Your task to perform on an android device: Find coffee shops on Maps Image 0: 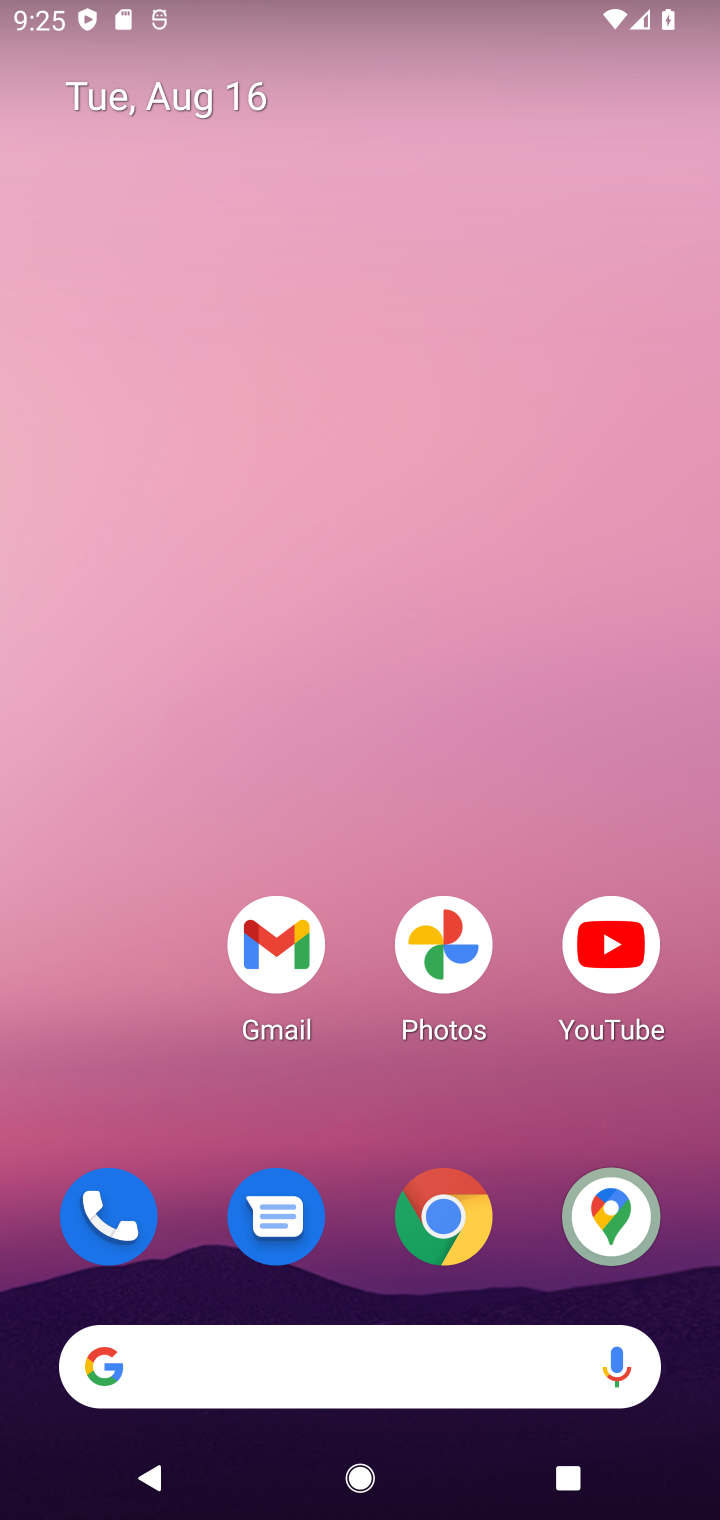
Step 0: drag from (379, 1135) to (379, 115)
Your task to perform on an android device: Find coffee shops on Maps Image 1: 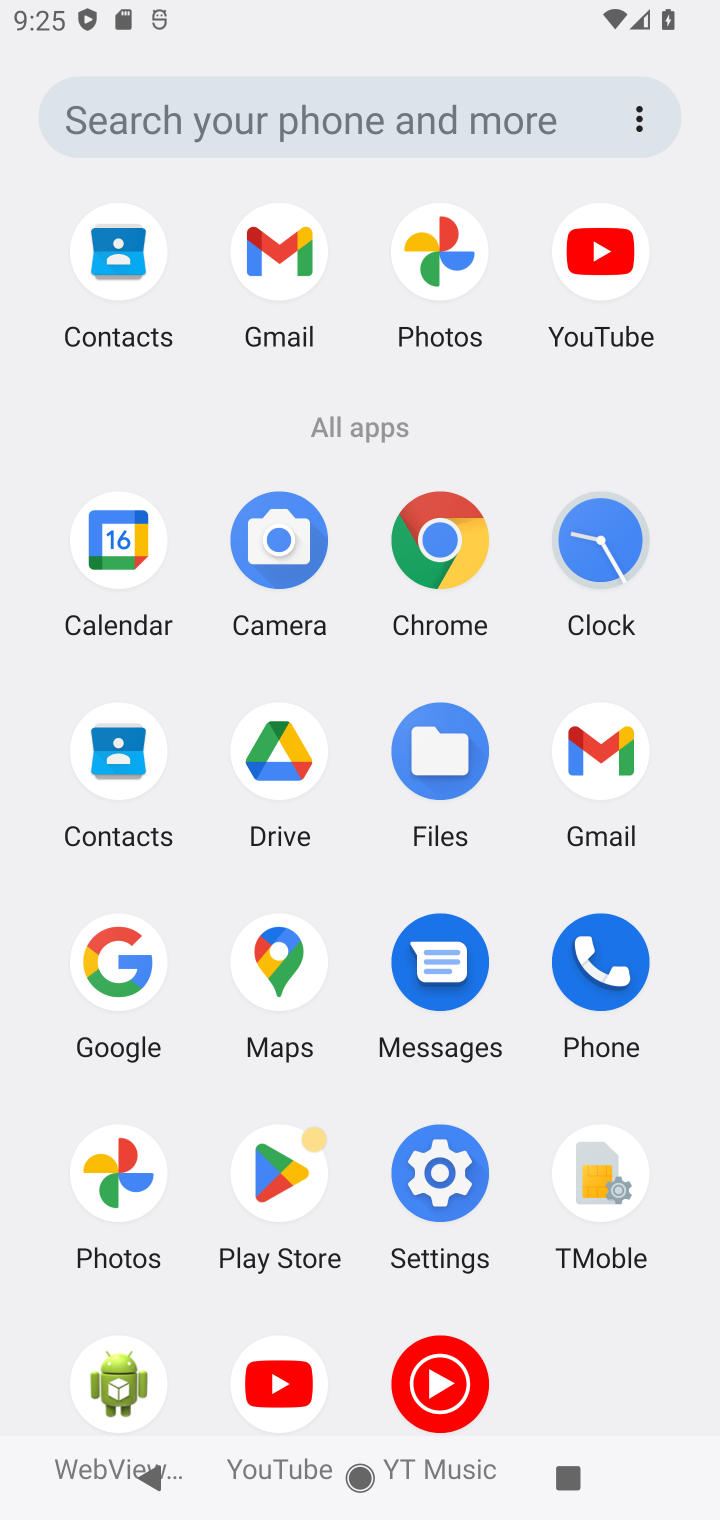
Step 1: click (271, 984)
Your task to perform on an android device: Find coffee shops on Maps Image 2: 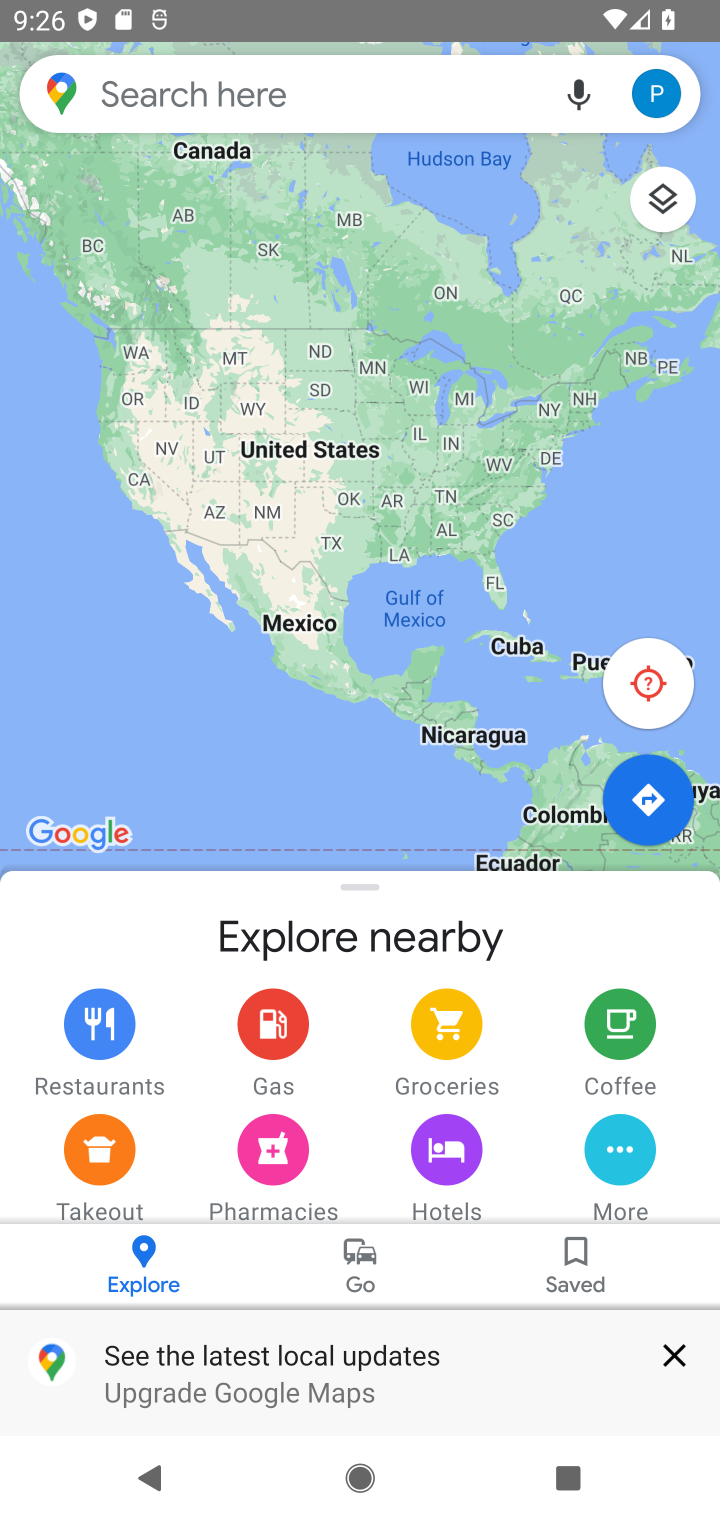
Step 2: click (349, 87)
Your task to perform on an android device: Find coffee shops on Maps Image 3: 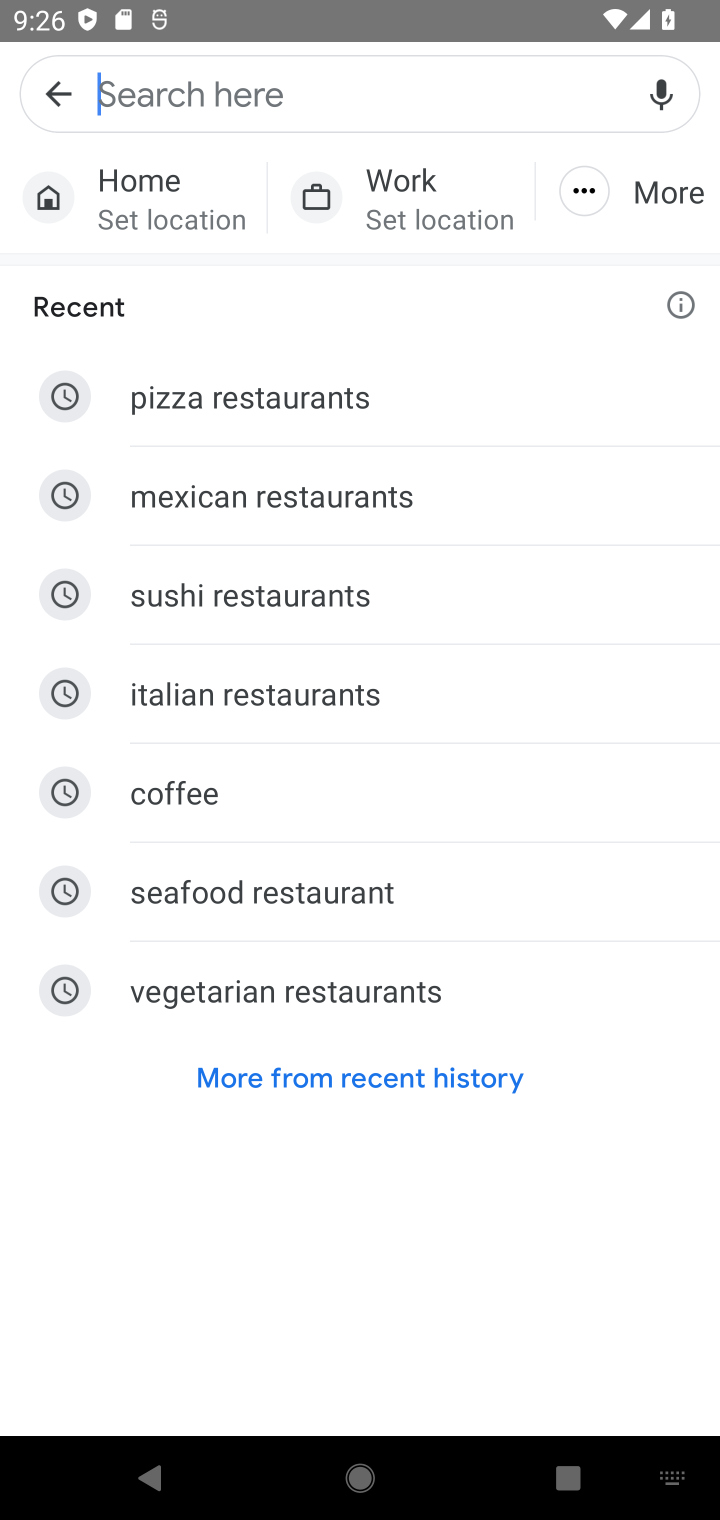
Step 3: type "coffee shops"
Your task to perform on an android device: Find coffee shops on Maps Image 4: 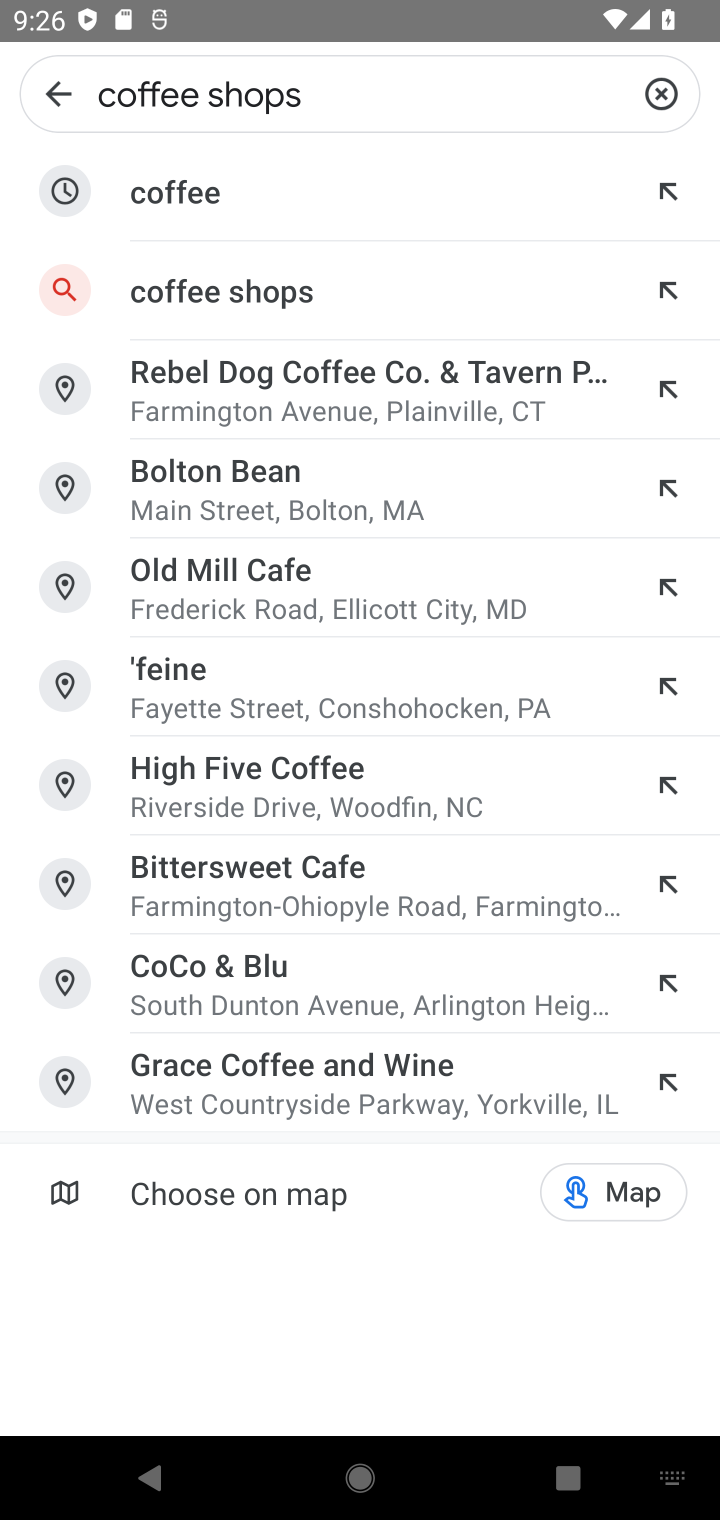
Step 4: click (268, 291)
Your task to perform on an android device: Find coffee shops on Maps Image 5: 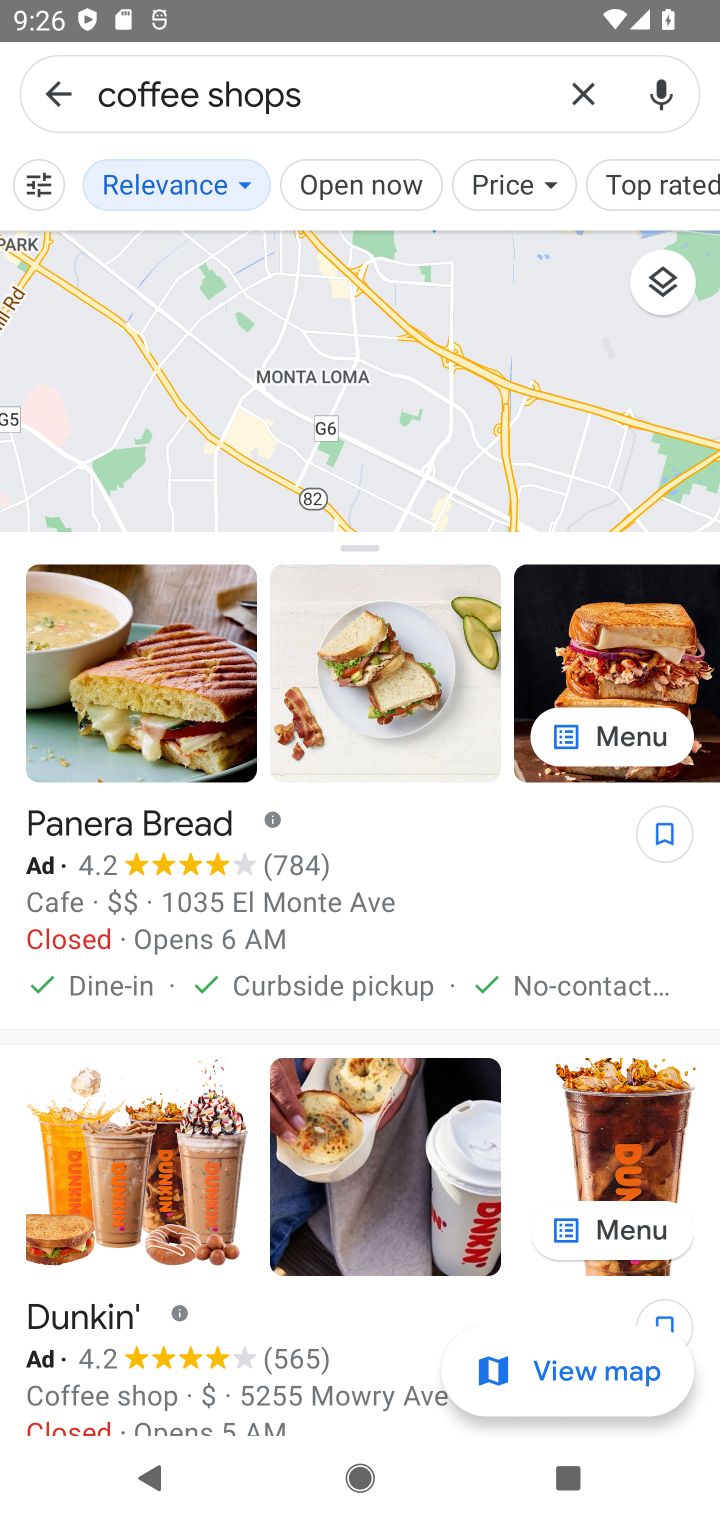
Step 5: task complete